Your task to perform on an android device: add a contact in the contacts app Image 0: 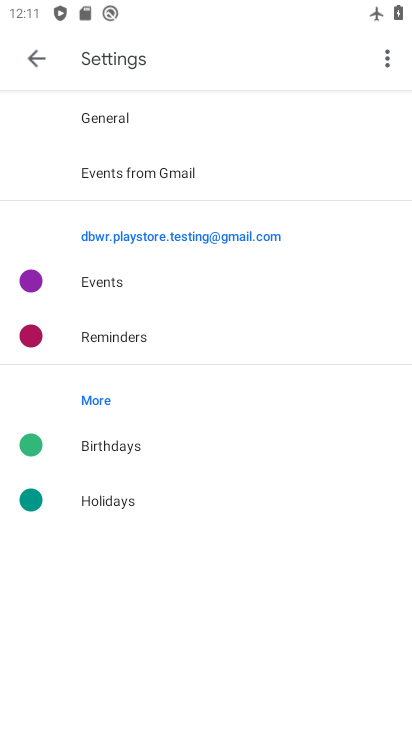
Step 0: press home button
Your task to perform on an android device: add a contact in the contacts app Image 1: 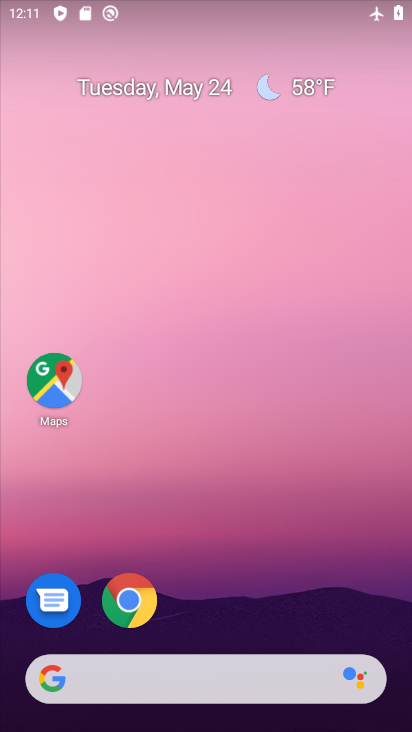
Step 1: drag from (277, 576) to (173, 0)
Your task to perform on an android device: add a contact in the contacts app Image 2: 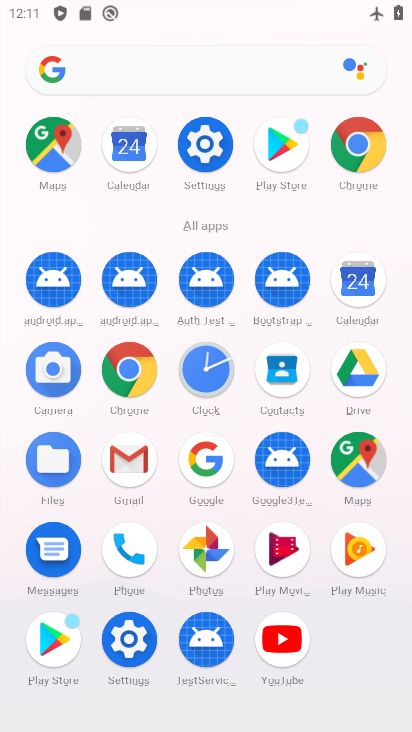
Step 2: click (285, 362)
Your task to perform on an android device: add a contact in the contacts app Image 3: 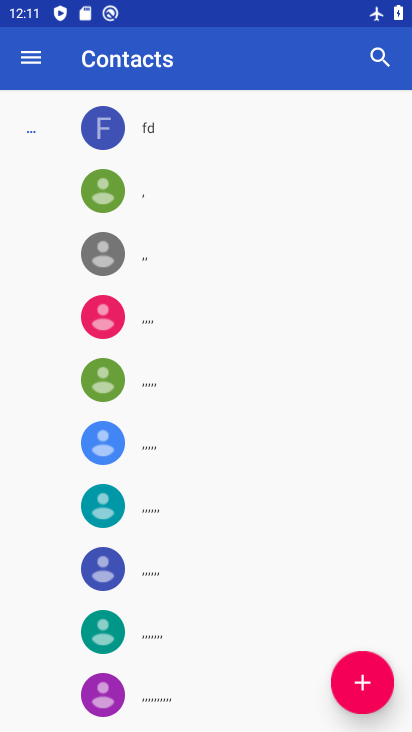
Step 3: click (367, 677)
Your task to perform on an android device: add a contact in the contacts app Image 4: 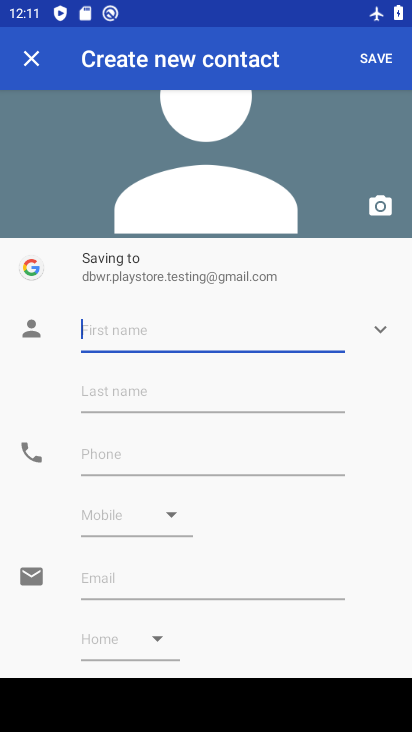
Step 4: type "fgsfg"
Your task to perform on an android device: add a contact in the contacts app Image 5: 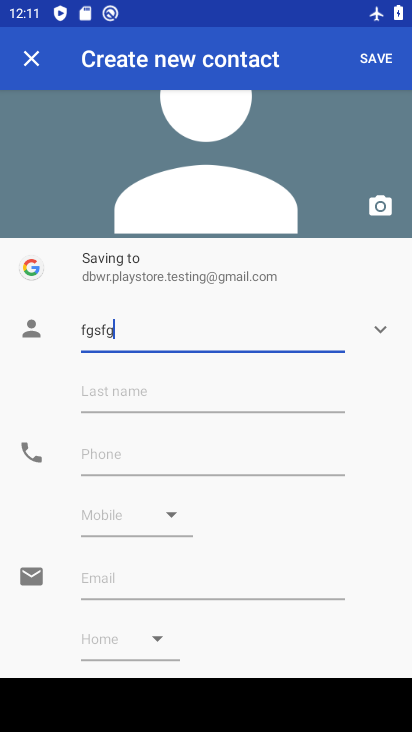
Step 5: type ""
Your task to perform on an android device: add a contact in the contacts app Image 6: 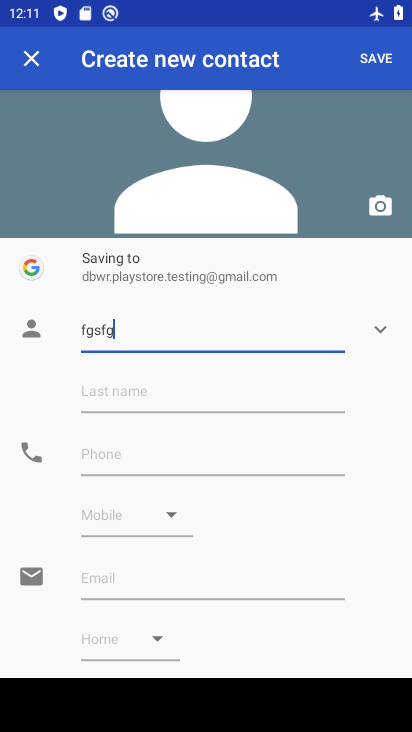
Step 6: click (197, 389)
Your task to perform on an android device: add a contact in the contacts app Image 7: 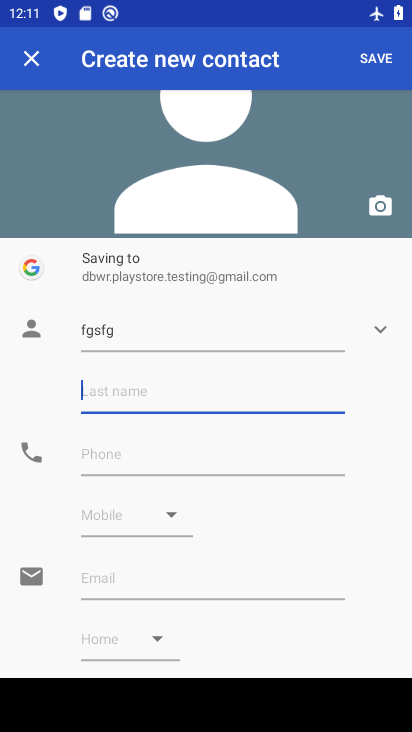
Step 7: type "fgs"
Your task to perform on an android device: add a contact in the contacts app Image 8: 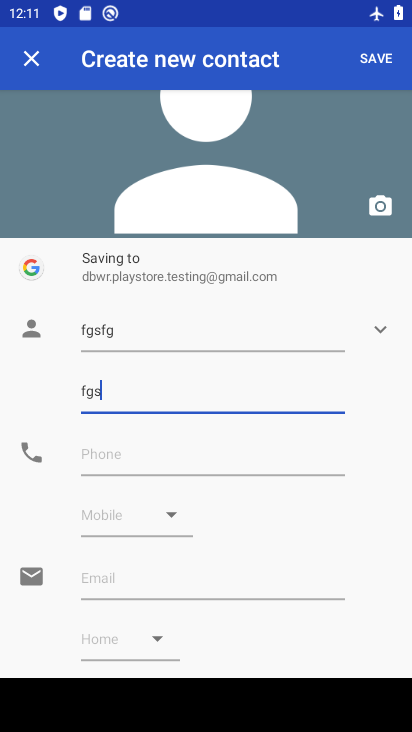
Step 8: click (218, 439)
Your task to perform on an android device: add a contact in the contacts app Image 9: 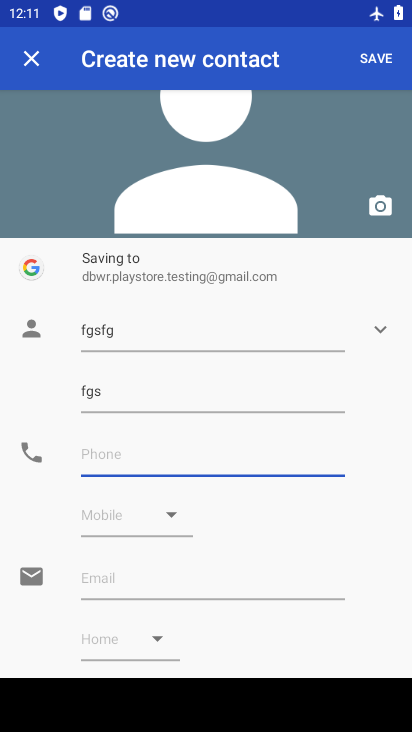
Step 9: type "56456456"
Your task to perform on an android device: add a contact in the contacts app Image 10: 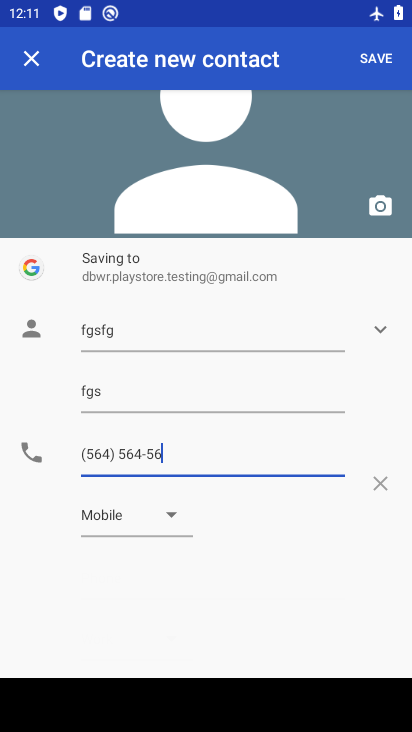
Step 10: type ""
Your task to perform on an android device: add a contact in the contacts app Image 11: 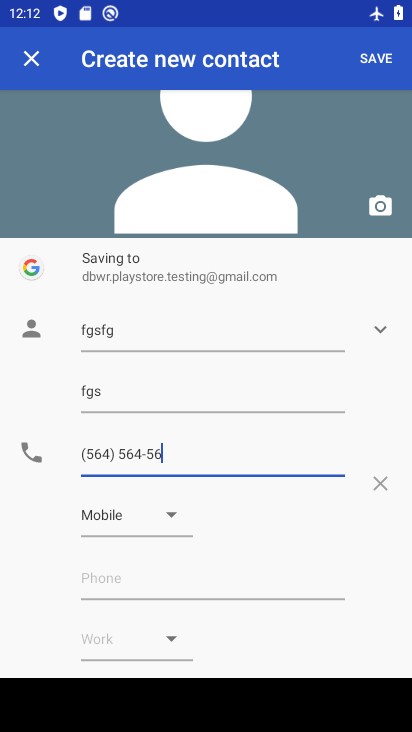
Step 11: click (379, 53)
Your task to perform on an android device: add a contact in the contacts app Image 12: 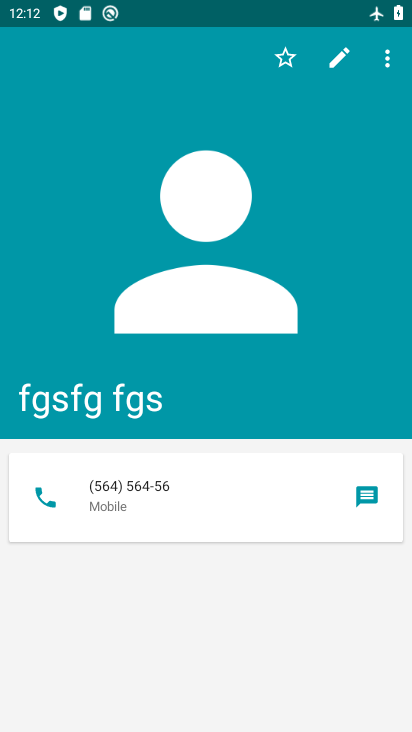
Step 12: task complete